Your task to perform on an android device: turn on airplane mode Image 0: 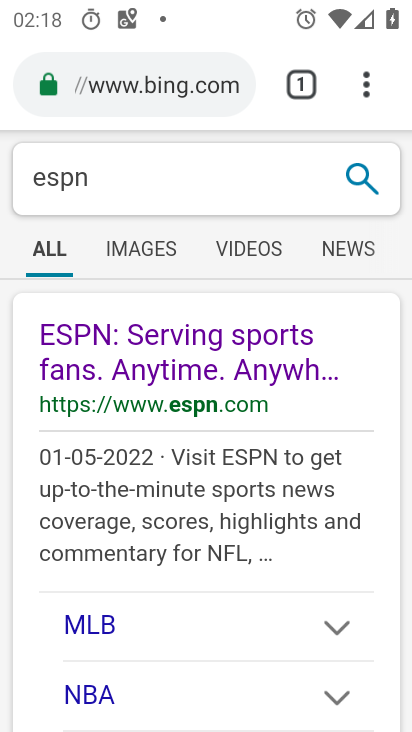
Step 0: press home button
Your task to perform on an android device: turn on airplane mode Image 1: 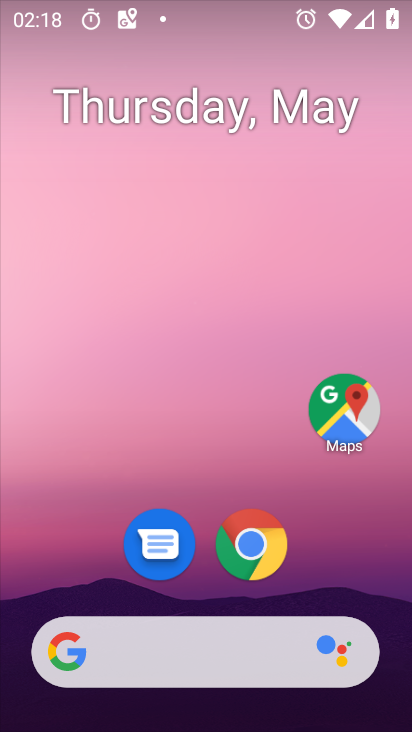
Step 1: drag from (337, 570) to (351, 143)
Your task to perform on an android device: turn on airplane mode Image 2: 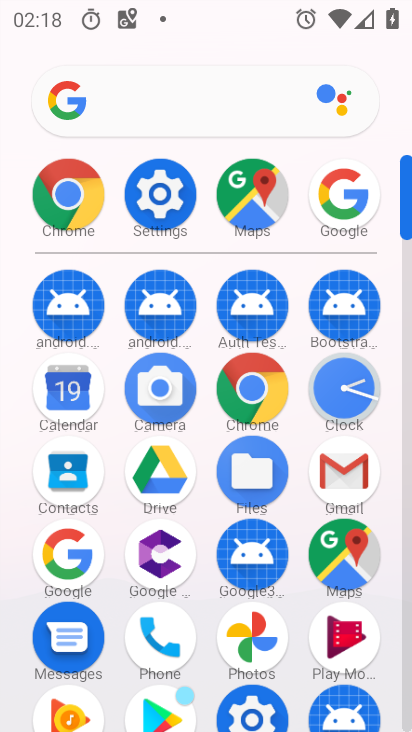
Step 2: click (173, 210)
Your task to perform on an android device: turn on airplane mode Image 3: 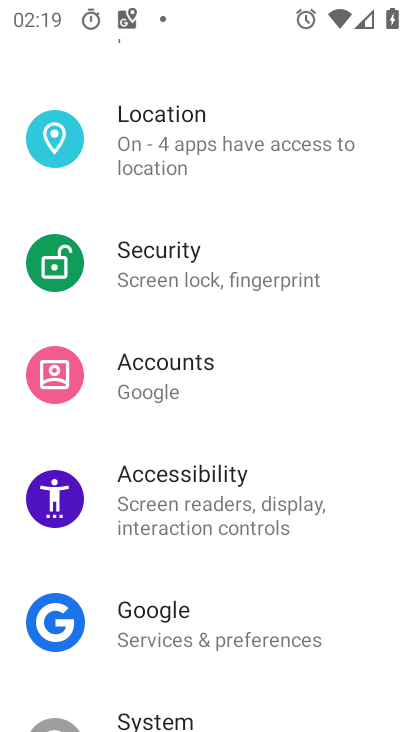
Step 3: drag from (352, 584) to (348, 533)
Your task to perform on an android device: turn on airplane mode Image 4: 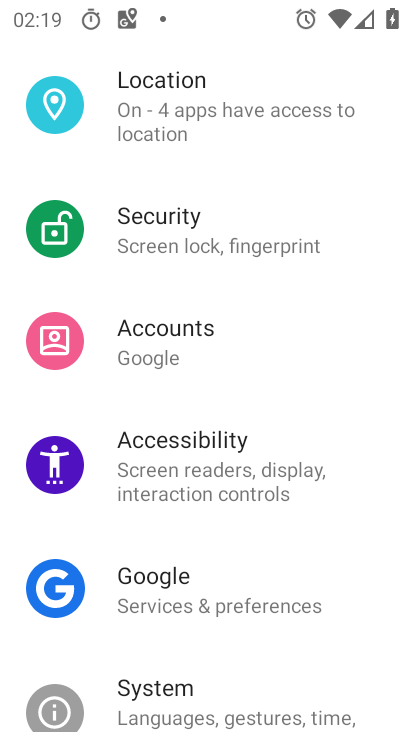
Step 4: drag from (348, 614) to (345, 509)
Your task to perform on an android device: turn on airplane mode Image 5: 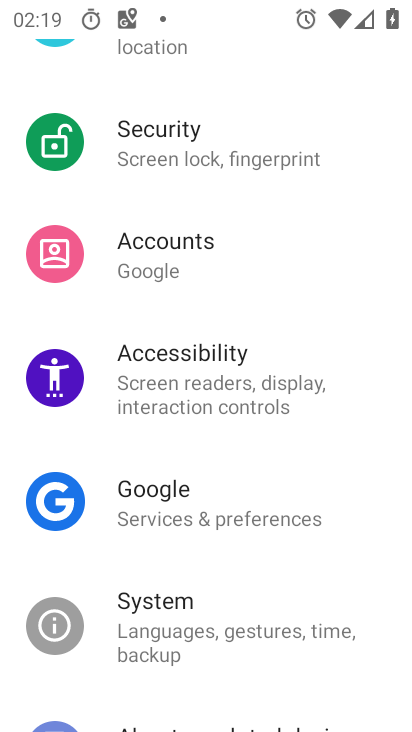
Step 5: drag from (335, 620) to (335, 503)
Your task to perform on an android device: turn on airplane mode Image 6: 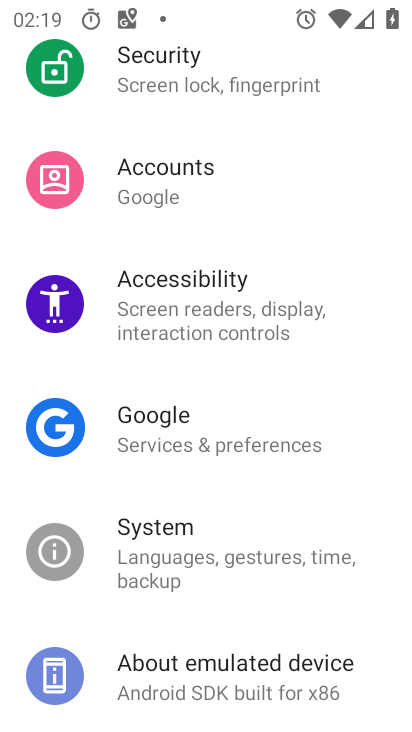
Step 6: drag from (307, 677) to (314, 551)
Your task to perform on an android device: turn on airplane mode Image 7: 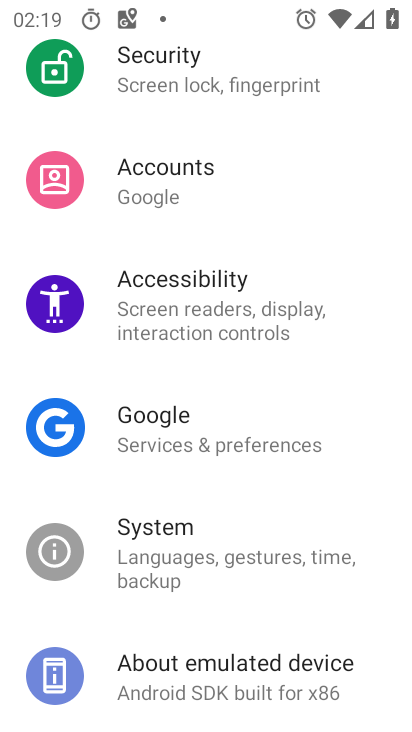
Step 7: drag from (304, 679) to (304, 613)
Your task to perform on an android device: turn on airplane mode Image 8: 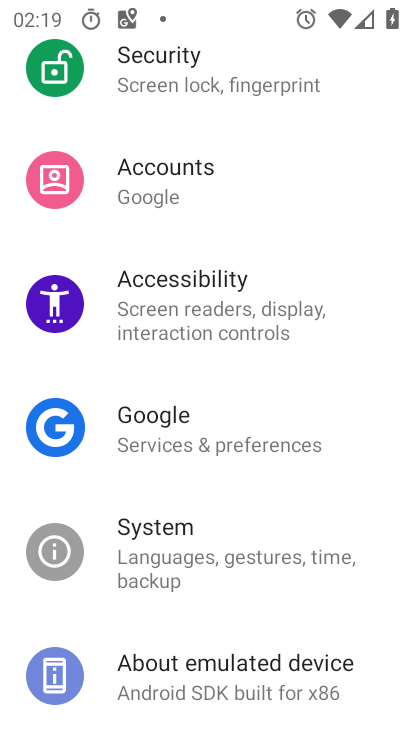
Step 8: drag from (304, 634) to (305, 531)
Your task to perform on an android device: turn on airplane mode Image 9: 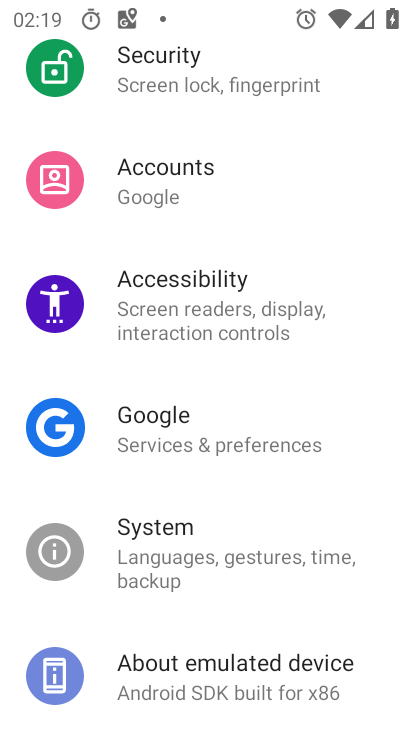
Step 9: drag from (310, 645) to (316, 557)
Your task to perform on an android device: turn on airplane mode Image 10: 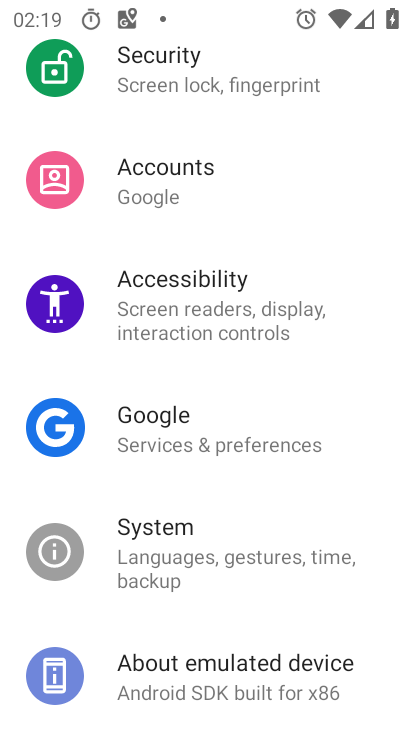
Step 10: drag from (323, 668) to (324, 632)
Your task to perform on an android device: turn on airplane mode Image 11: 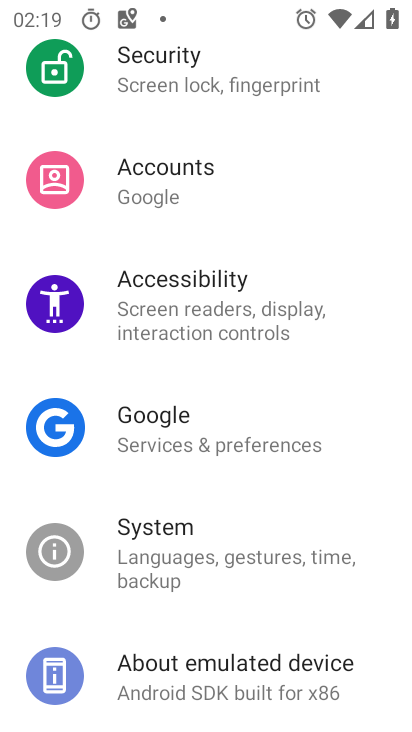
Step 11: drag from (314, 663) to (316, 552)
Your task to perform on an android device: turn on airplane mode Image 12: 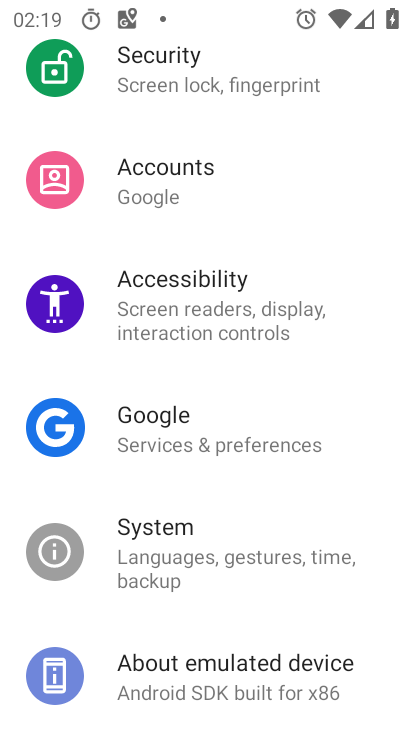
Step 12: drag from (310, 375) to (335, 529)
Your task to perform on an android device: turn on airplane mode Image 13: 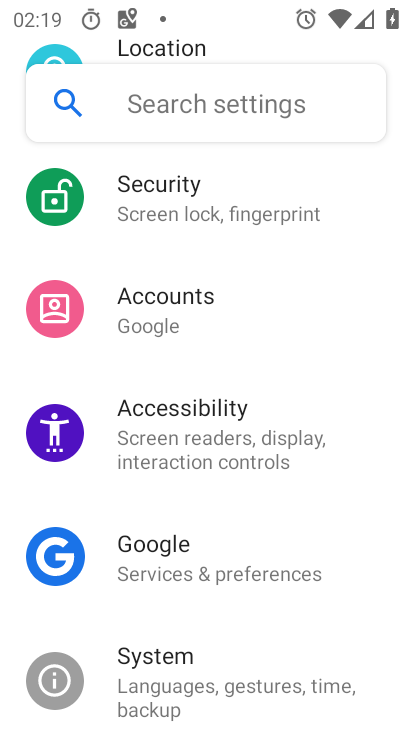
Step 13: click (311, 372)
Your task to perform on an android device: turn on airplane mode Image 14: 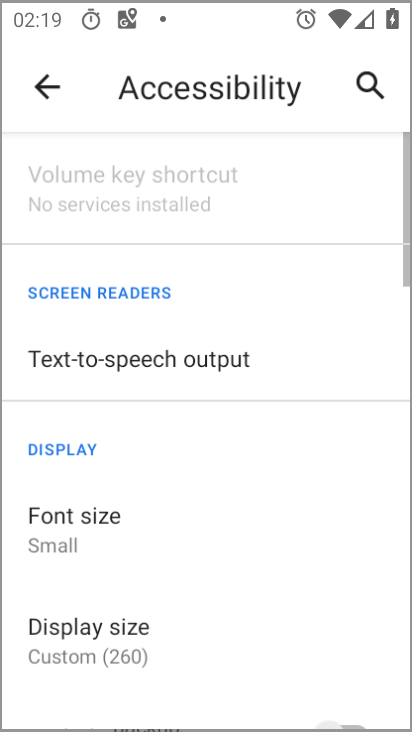
Step 14: drag from (305, 293) to (305, 398)
Your task to perform on an android device: turn on airplane mode Image 15: 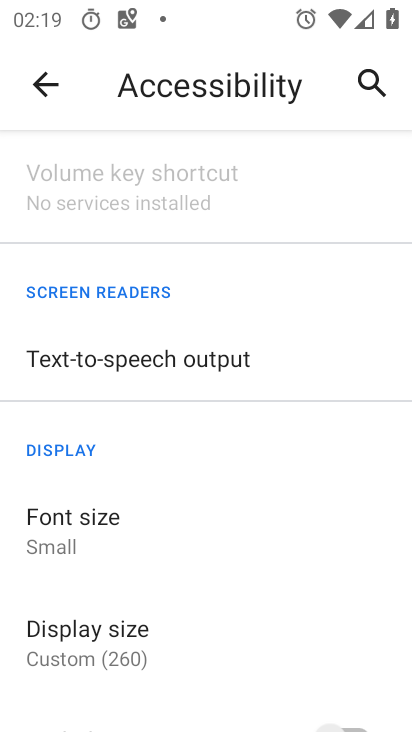
Step 15: drag from (290, 318) to (312, 426)
Your task to perform on an android device: turn on airplane mode Image 16: 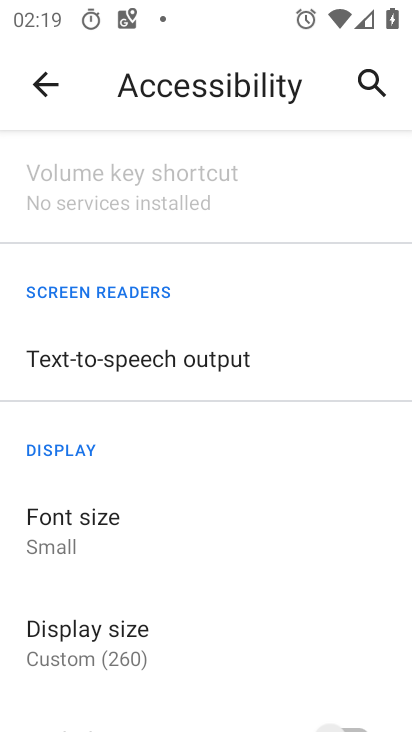
Step 16: drag from (302, 299) to (324, 437)
Your task to perform on an android device: turn on airplane mode Image 17: 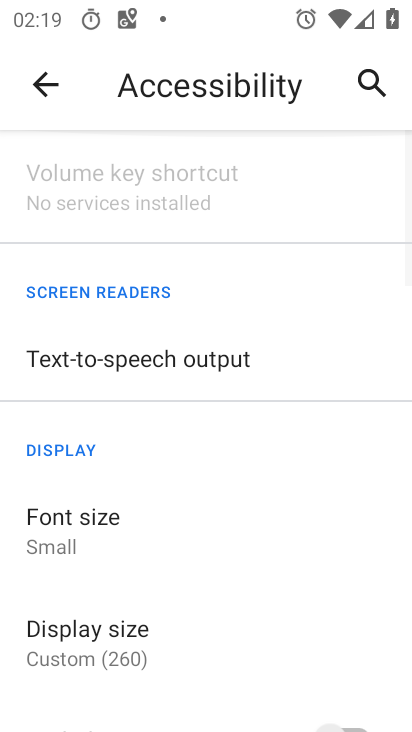
Step 17: drag from (306, 299) to (321, 471)
Your task to perform on an android device: turn on airplane mode Image 18: 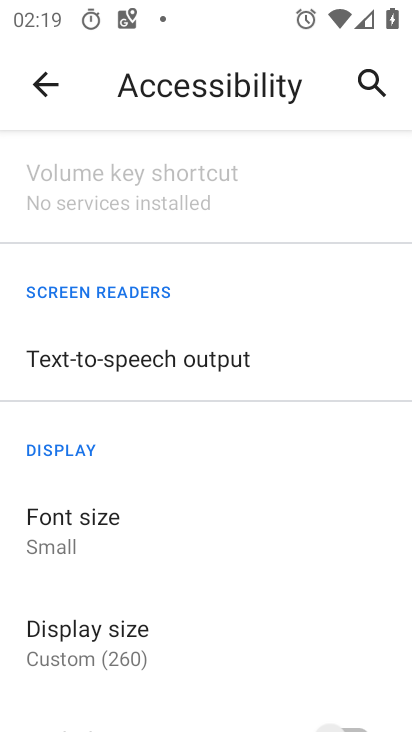
Step 18: click (21, 89)
Your task to perform on an android device: turn on airplane mode Image 19: 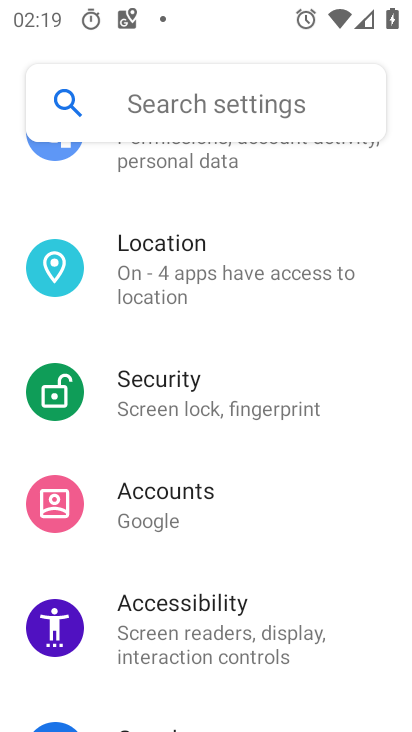
Step 19: drag from (323, 246) to (339, 400)
Your task to perform on an android device: turn on airplane mode Image 20: 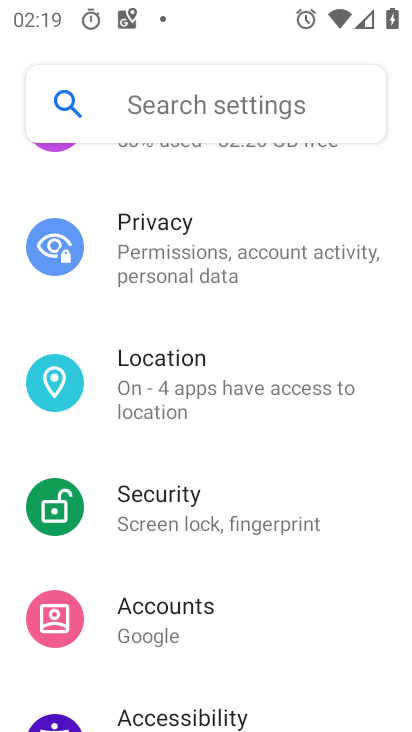
Step 20: drag from (323, 198) to (331, 346)
Your task to perform on an android device: turn on airplane mode Image 21: 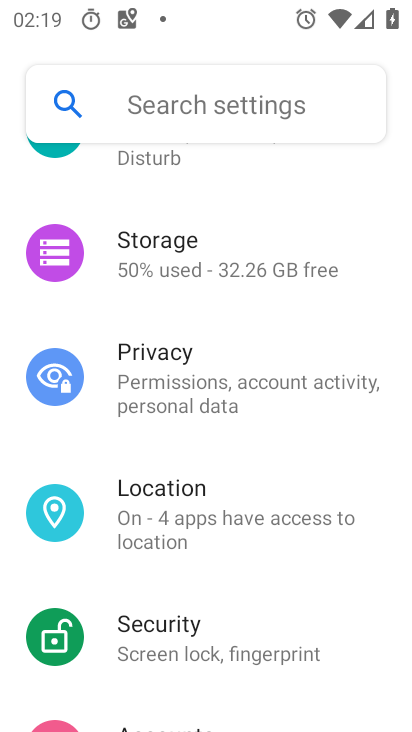
Step 21: drag from (322, 197) to (322, 273)
Your task to perform on an android device: turn on airplane mode Image 22: 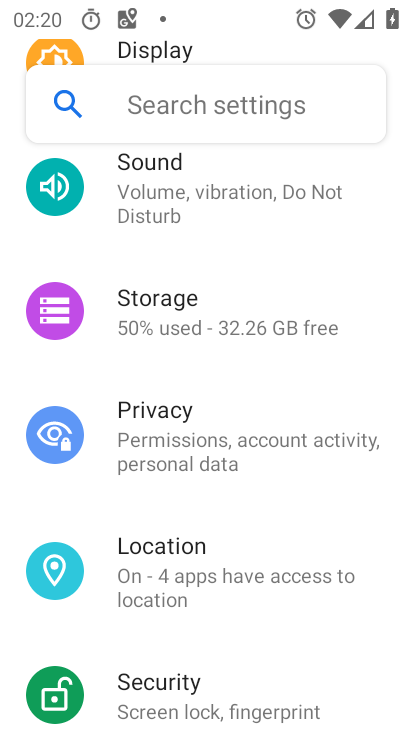
Step 22: click (311, 234)
Your task to perform on an android device: turn on airplane mode Image 23: 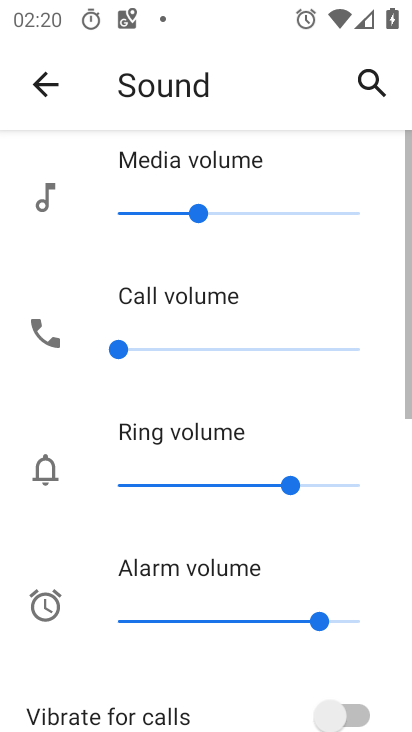
Step 23: click (311, 218)
Your task to perform on an android device: turn on airplane mode Image 24: 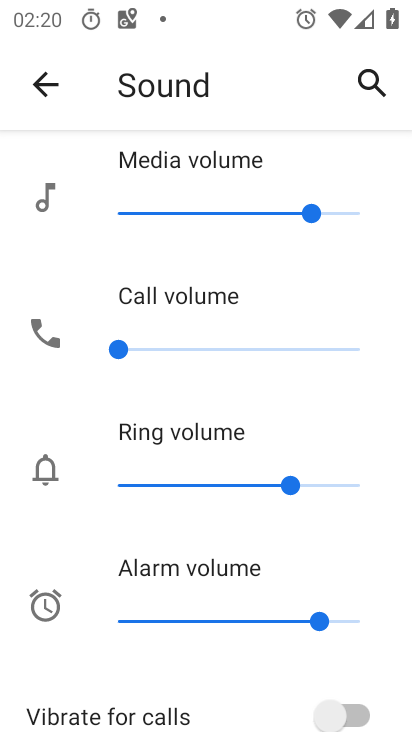
Step 24: click (43, 86)
Your task to perform on an android device: turn on airplane mode Image 25: 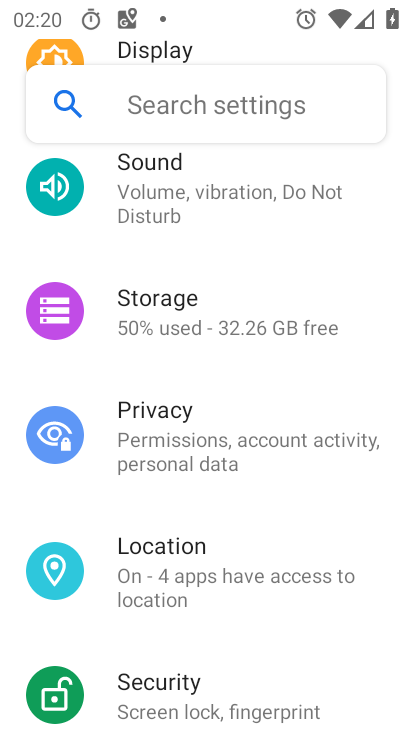
Step 25: drag from (321, 239) to (345, 404)
Your task to perform on an android device: turn on airplane mode Image 26: 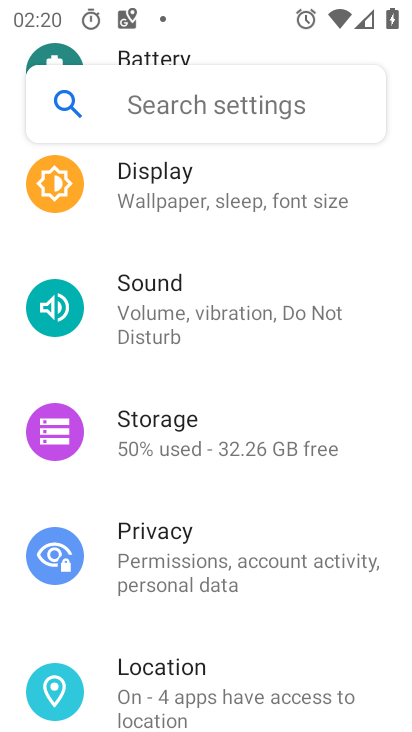
Step 26: drag from (321, 194) to (334, 369)
Your task to perform on an android device: turn on airplane mode Image 27: 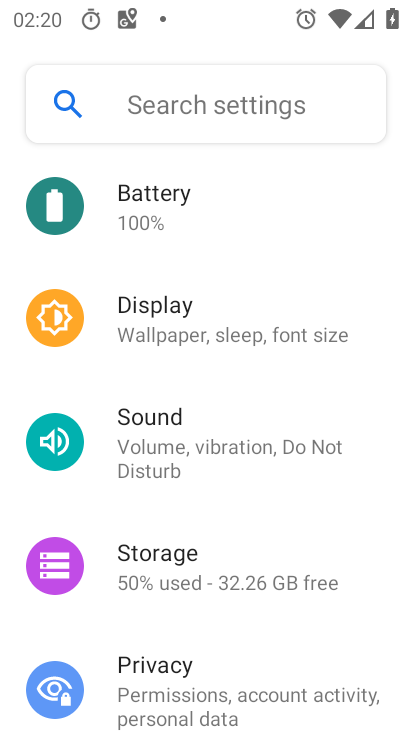
Step 27: drag from (327, 168) to (336, 298)
Your task to perform on an android device: turn on airplane mode Image 28: 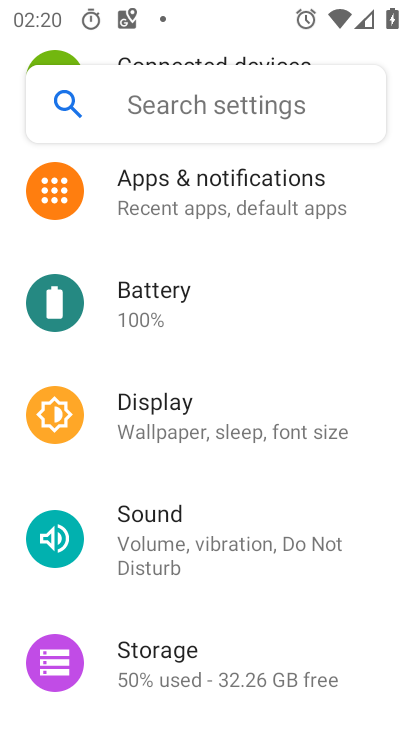
Step 28: drag from (301, 197) to (324, 275)
Your task to perform on an android device: turn on airplane mode Image 29: 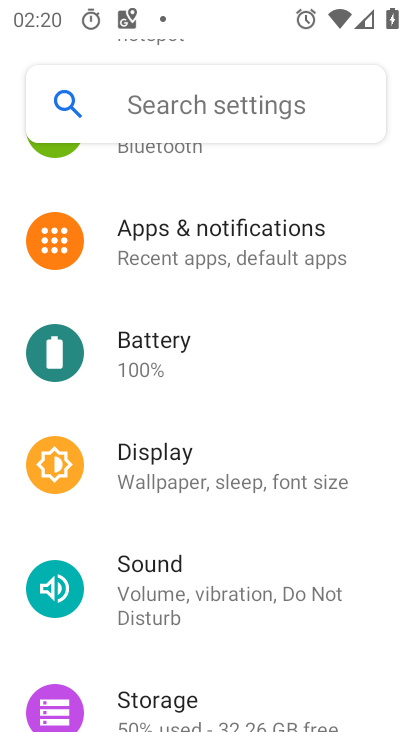
Step 29: drag from (317, 198) to (323, 268)
Your task to perform on an android device: turn on airplane mode Image 30: 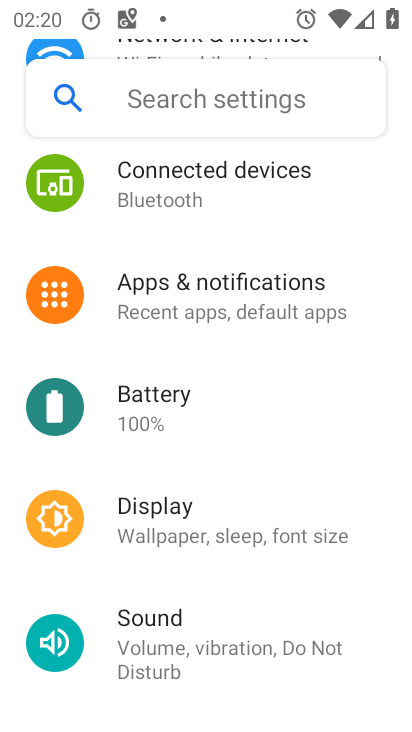
Step 30: drag from (296, 214) to (301, 344)
Your task to perform on an android device: turn on airplane mode Image 31: 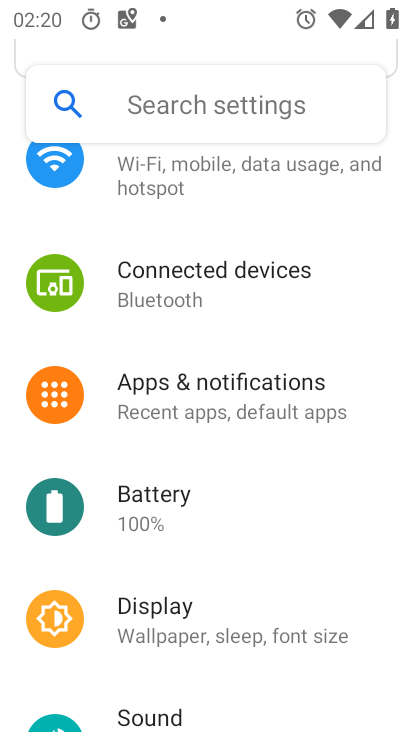
Step 31: drag from (303, 240) to (302, 331)
Your task to perform on an android device: turn on airplane mode Image 32: 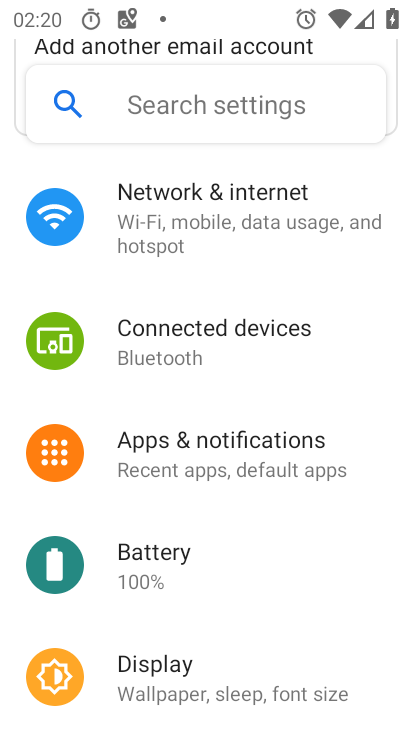
Step 32: click (282, 212)
Your task to perform on an android device: turn on airplane mode Image 33: 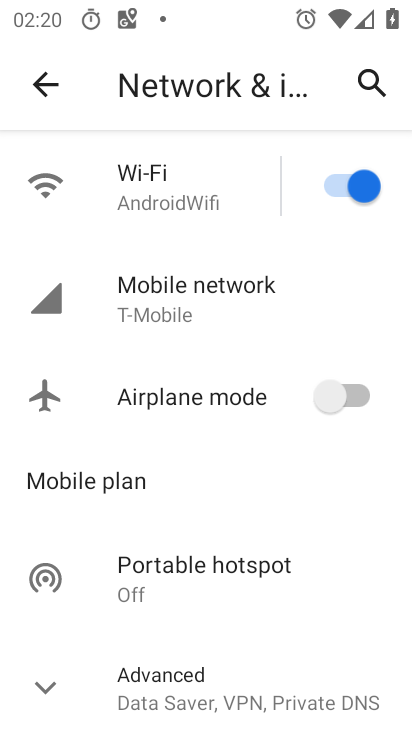
Step 33: click (335, 390)
Your task to perform on an android device: turn on airplane mode Image 34: 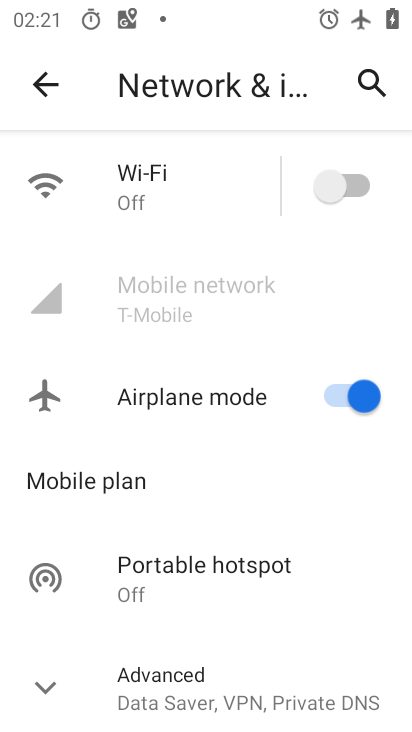
Step 34: task complete